Your task to perform on an android device: Open Google Image 0: 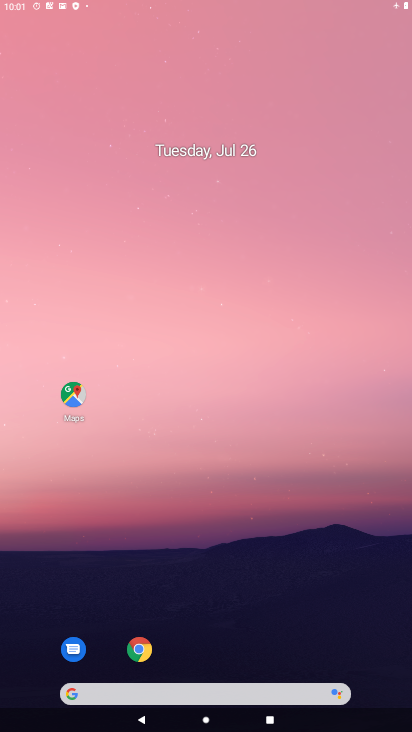
Step 0: click (398, 114)
Your task to perform on an android device: Open Google Image 1: 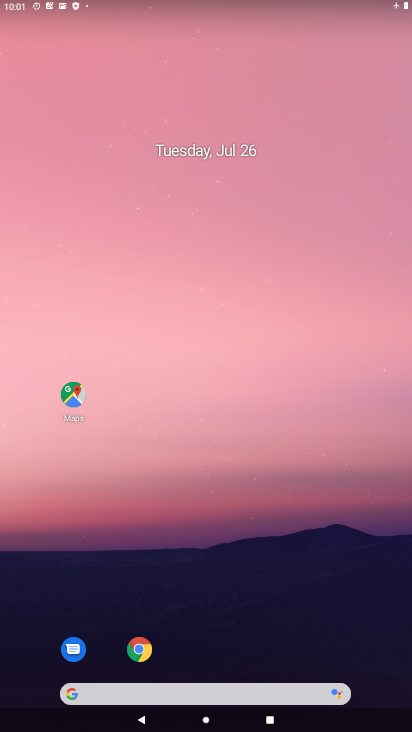
Step 1: drag from (166, 627) to (210, 103)
Your task to perform on an android device: Open Google Image 2: 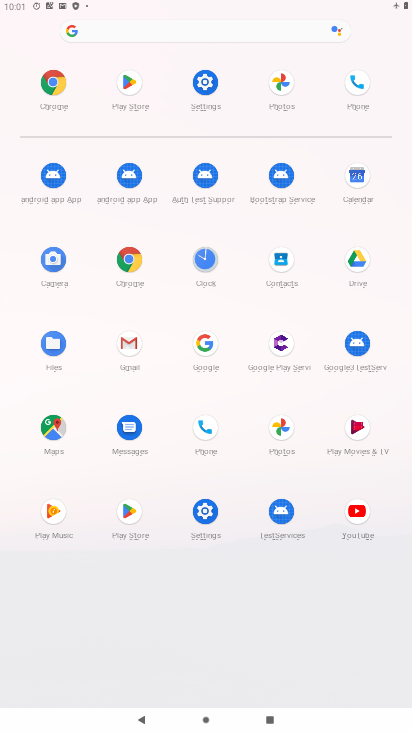
Step 2: click (196, 340)
Your task to perform on an android device: Open Google Image 3: 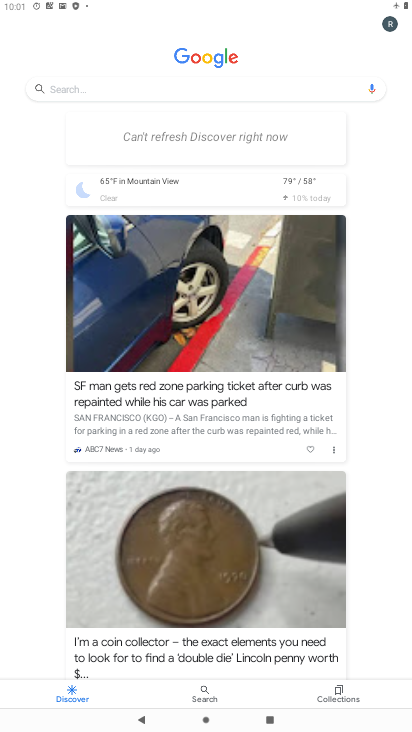
Step 3: task complete